Your task to perform on an android device: Go to Android settings Image 0: 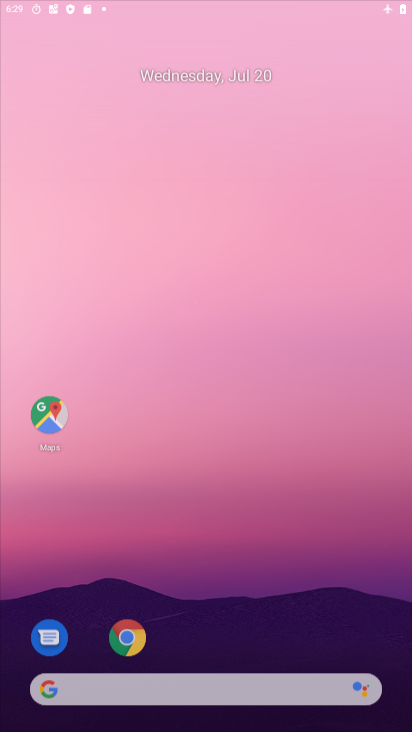
Step 0: press home button
Your task to perform on an android device: Go to Android settings Image 1: 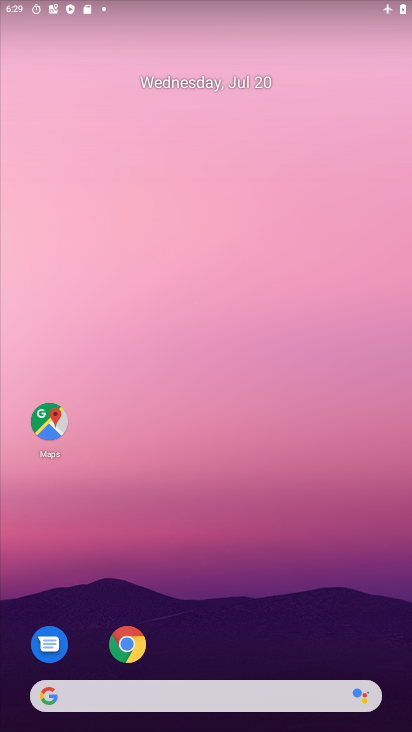
Step 1: drag from (223, 645) to (88, 5)
Your task to perform on an android device: Go to Android settings Image 2: 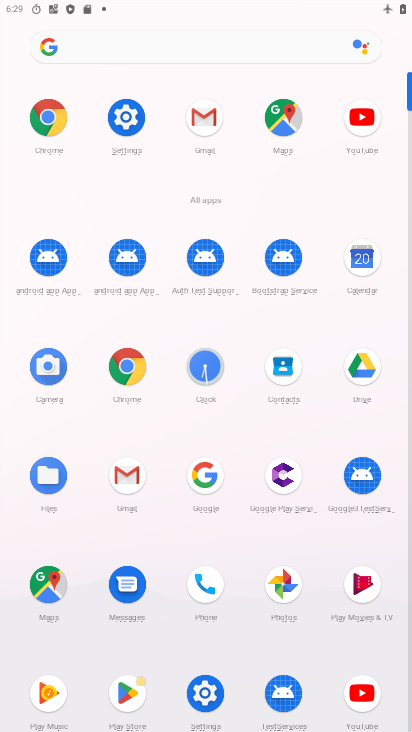
Step 2: click (105, 124)
Your task to perform on an android device: Go to Android settings Image 3: 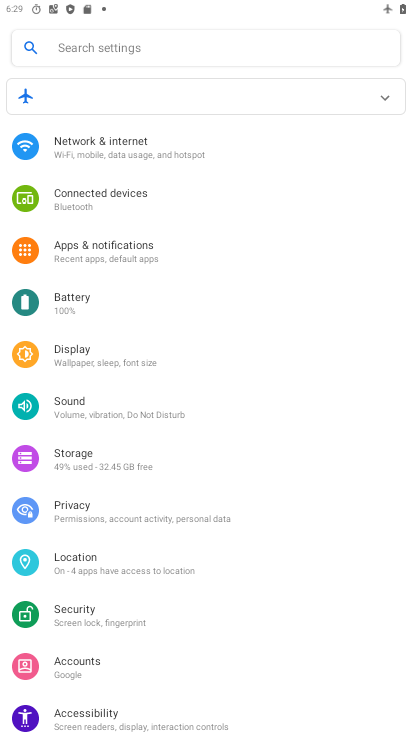
Step 3: task complete